Your task to perform on an android device: Turn on the flashlight Image 0: 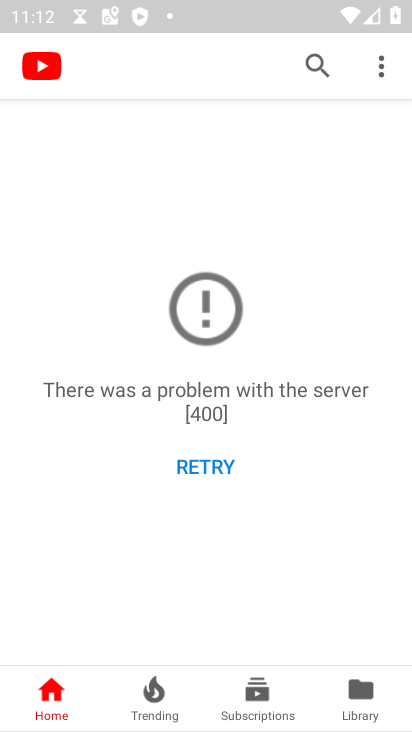
Step 0: press home button
Your task to perform on an android device: Turn on the flashlight Image 1: 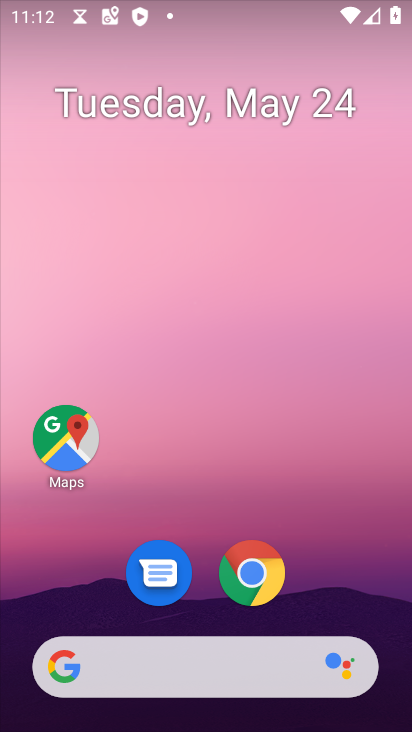
Step 1: task complete